Your task to perform on an android device: Go to internet settings Image 0: 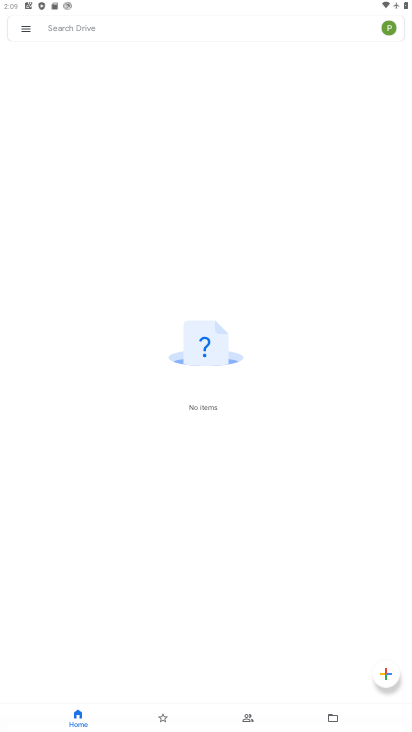
Step 0: press home button
Your task to perform on an android device: Go to internet settings Image 1: 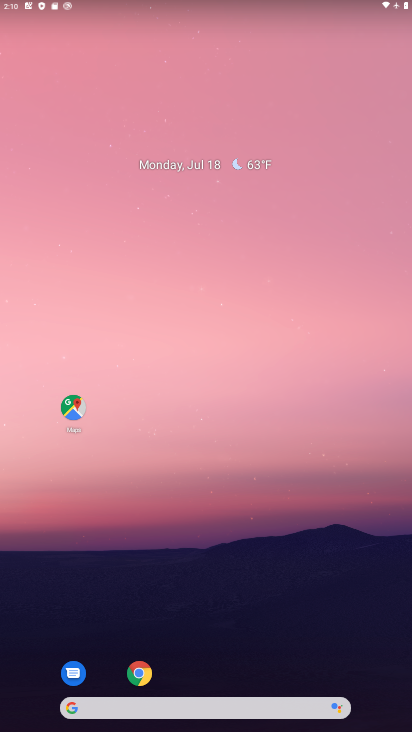
Step 1: drag from (200, 632) to (226, 305)
Your task to perform on an android device: Go to internet settings Image 2: 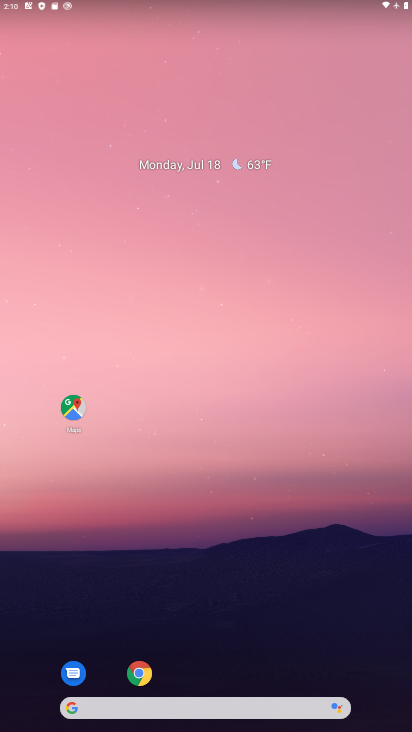
Step 2: drag from (194, 668) to (226, 196)
Your task to perform on an android device: Go to internet settings Image 3: 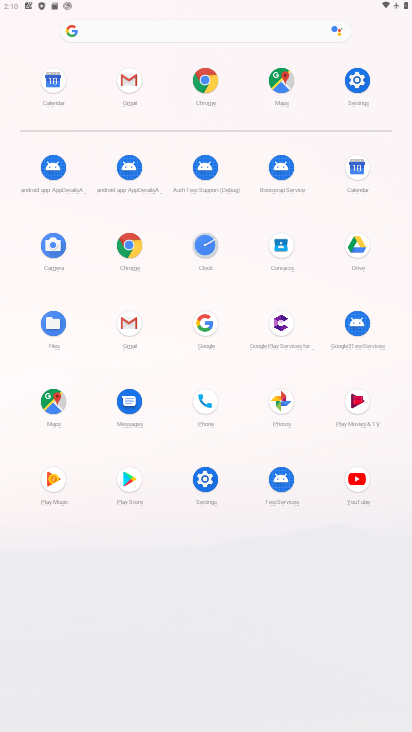
Step 3: click (346, 81)
Your task to perform on an android device: Go to internet settings Image 4: 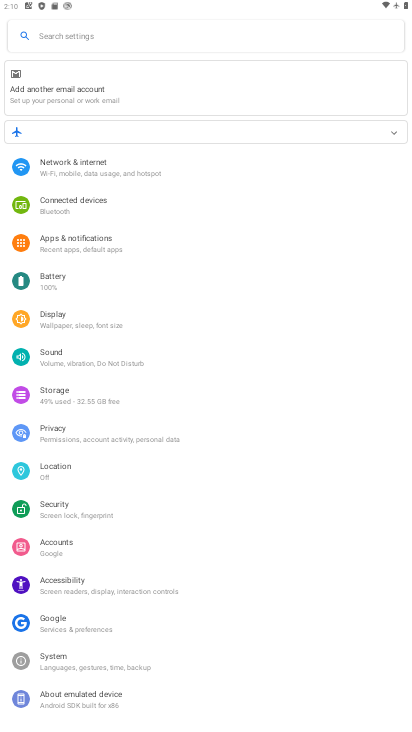
Step 4: click (91, 160)
Your task to perform on an android device: Go to internet settings Image 5: 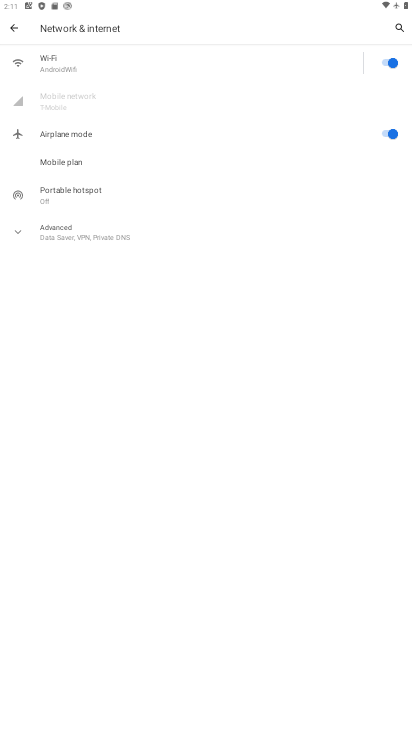
Step 5: task complete